Your task to perform on an android device: change the clock display to show seconds Image 0: 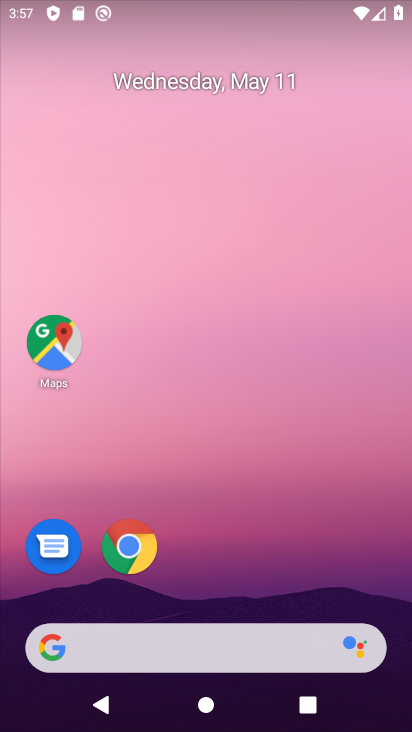
Step 0: drag from (235, 618) to (270, 203)
Your task to perform on an android device: change the clock display to show seconds Image 1: 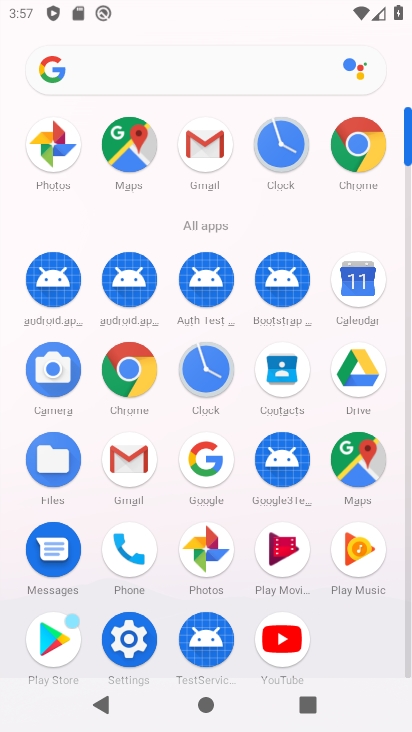
Step 1: click (220, 372)
Your task to perform on an android device: change the clock display to show seconds Image 2: 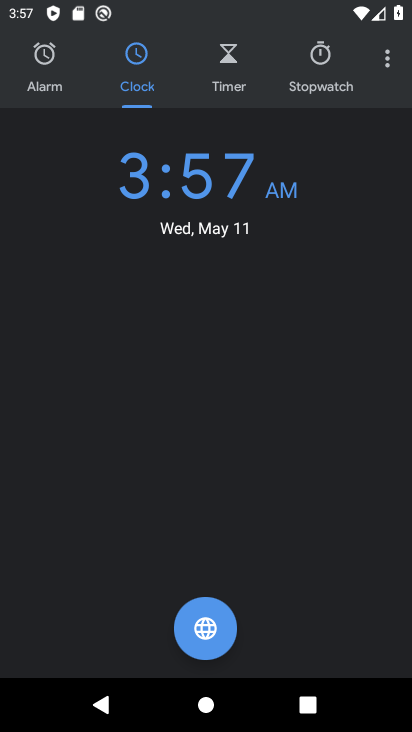
Step 2: click (386, 58)
Your task to perform on an android device: change the clock display to show seconds Image 3: 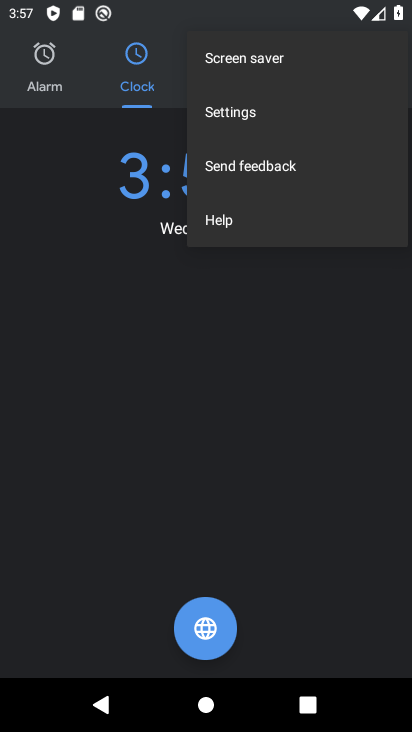
Step 3: click (236, 120)
Your task to perform on an android device: change the clock display to show seconds Image 4: 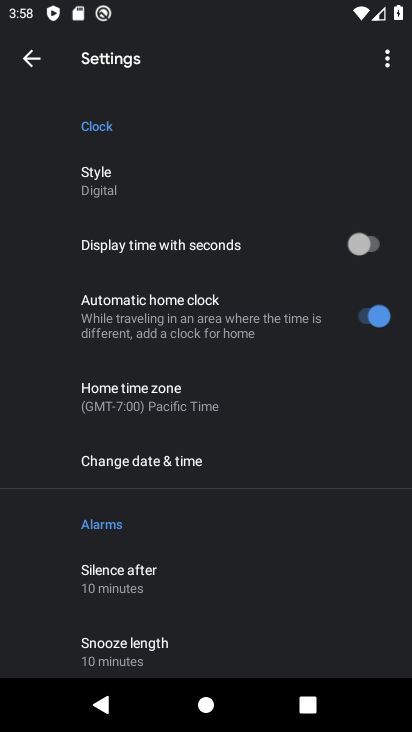
Step 4: click (373, 241)
Your task to perform on an android device: change the clock display to show seconds Image 5: 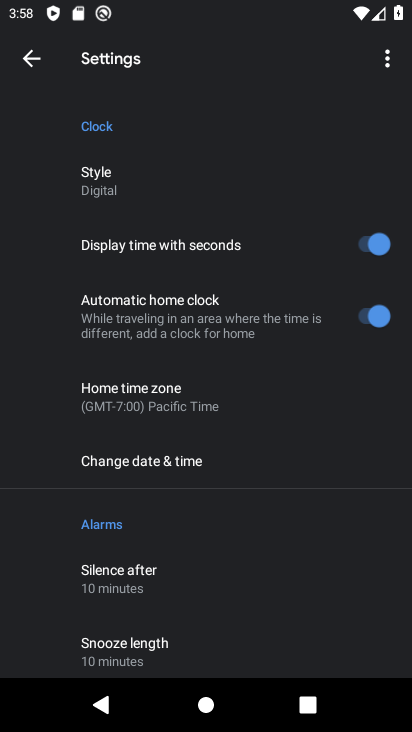
Step 5: task complete